Your task to perform on an android device: Open the stopwatch Image 0: 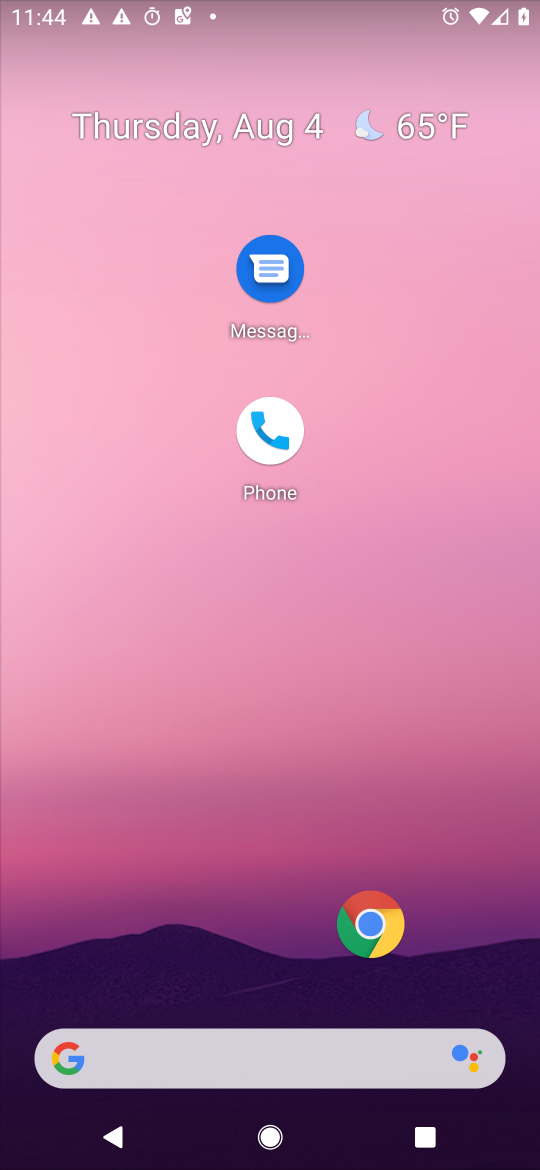
Step 0: drag from (252, 911) to (381, 268)
Your task to perform on an android device: Open the stopwatch Image 1: 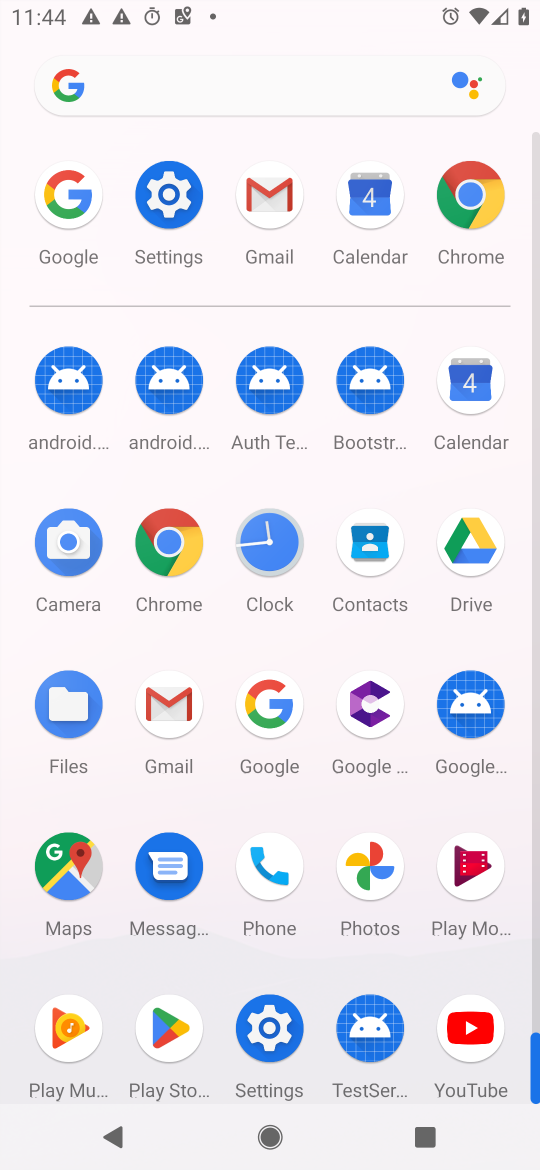
Step 1: click (252, 530)
Your task to perform on an android device: Open the stopwatch Image 2: 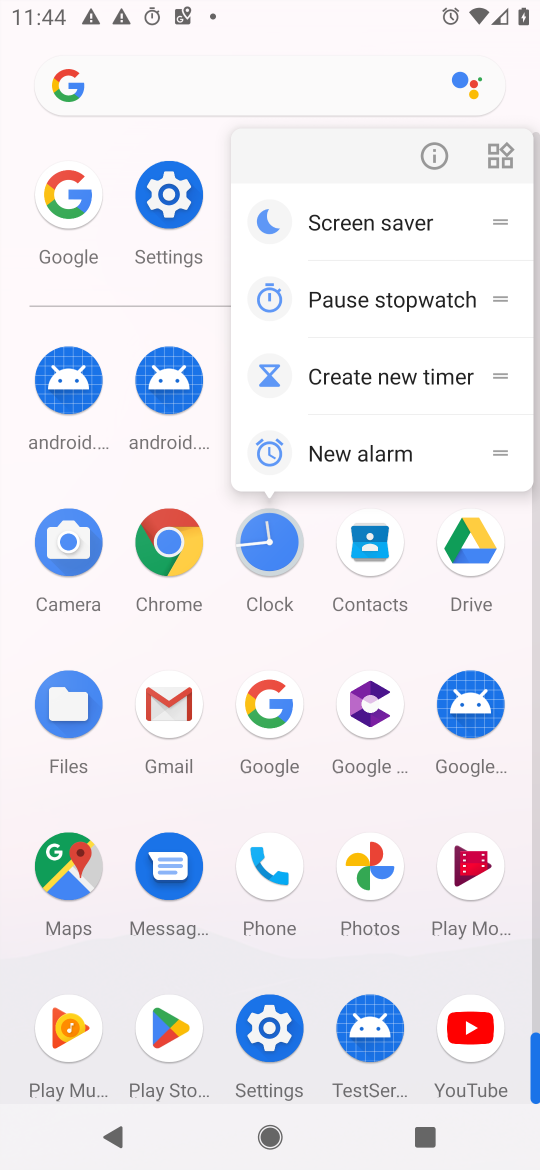
Step 2: click (424, 125)
Your task to perform on an android device: Open the stopwatch Image 3: 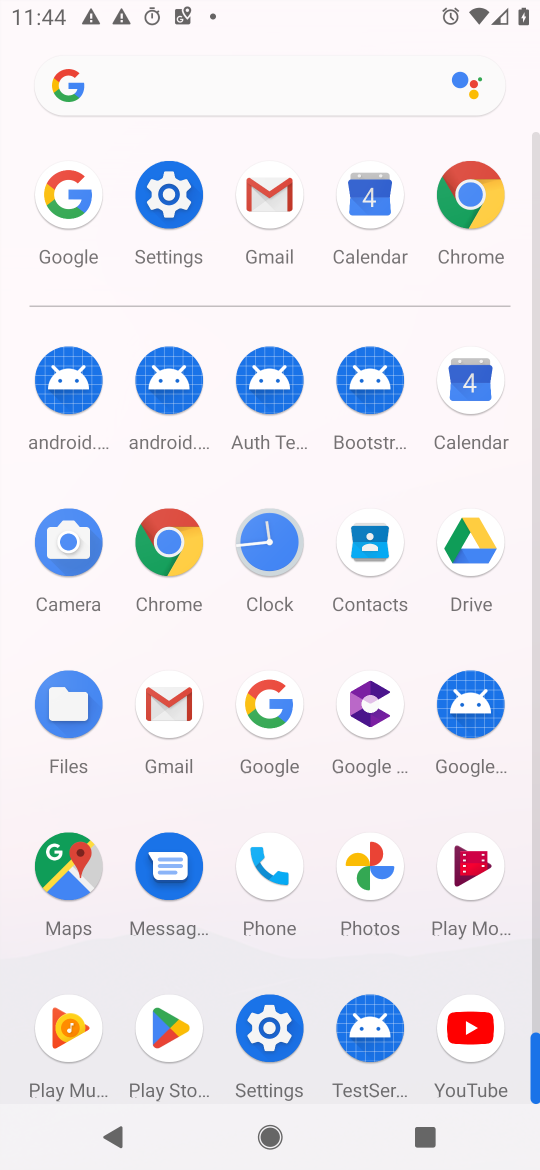
Step 3: click (268, 542)
Your task to perform on an android device: Open the stopwatch Image 4: 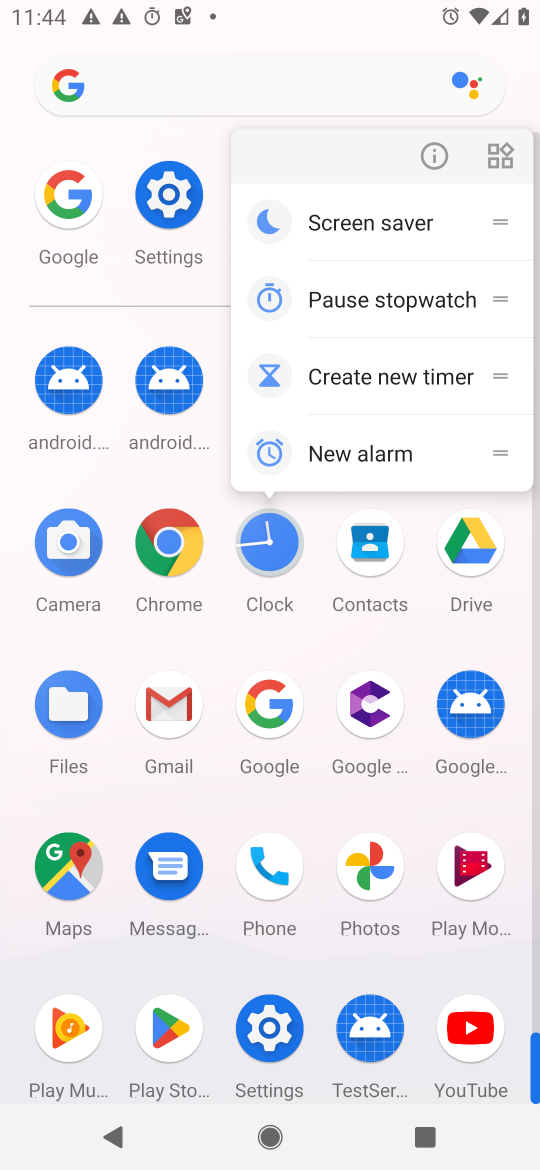
Step 4: click (434, 143)
Your task to perform on an android device: Open the stopwatch Image 5: 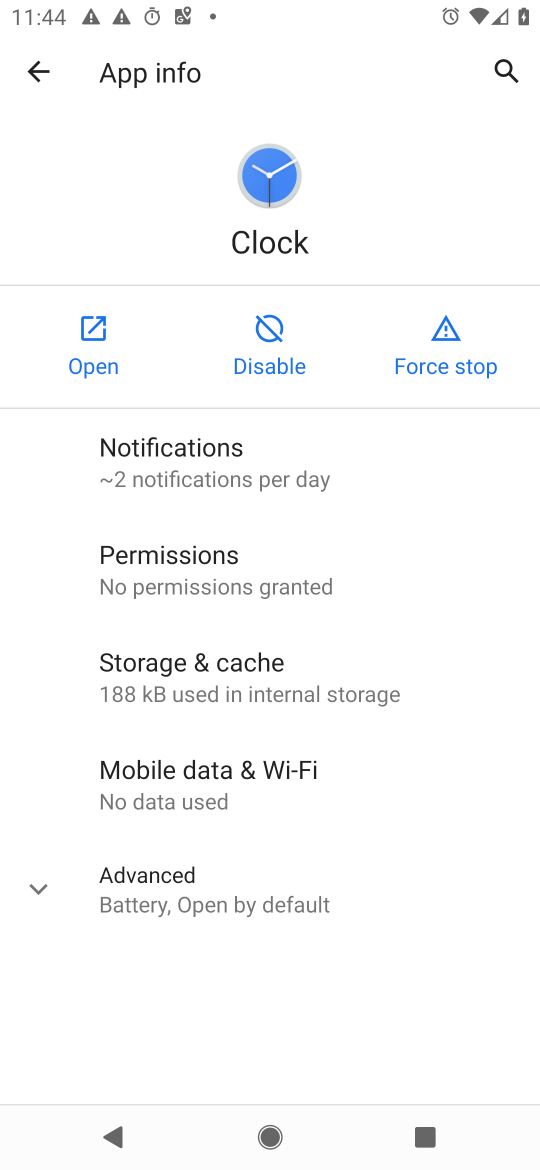
Step 5: click (57, 348)
Your task to perform on an android device: Open the stopwatch Image 6: 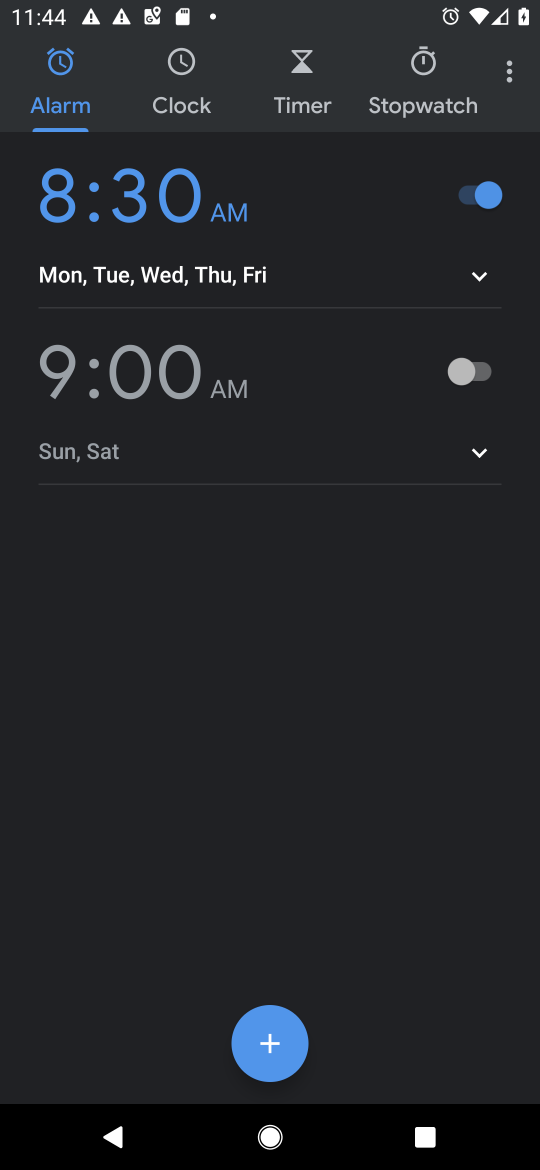
Step 6: click (412, 52)
Your task to perform on an android device: Open the stopwatch Image 7: 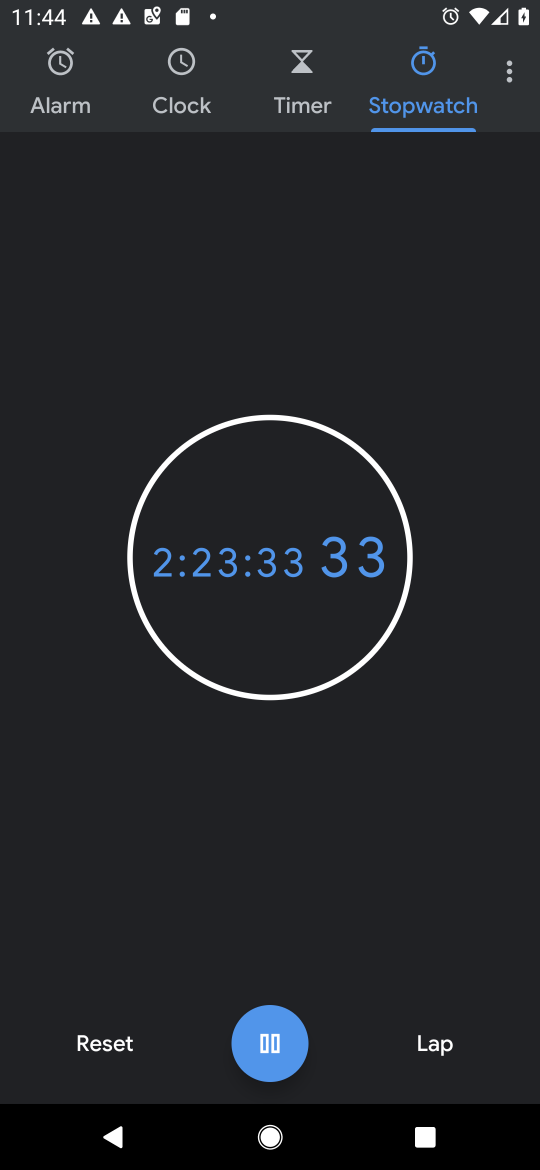
Step 7: click (96, 1040)
Your task to perform on an android device: Open the stopwatch Image 8: 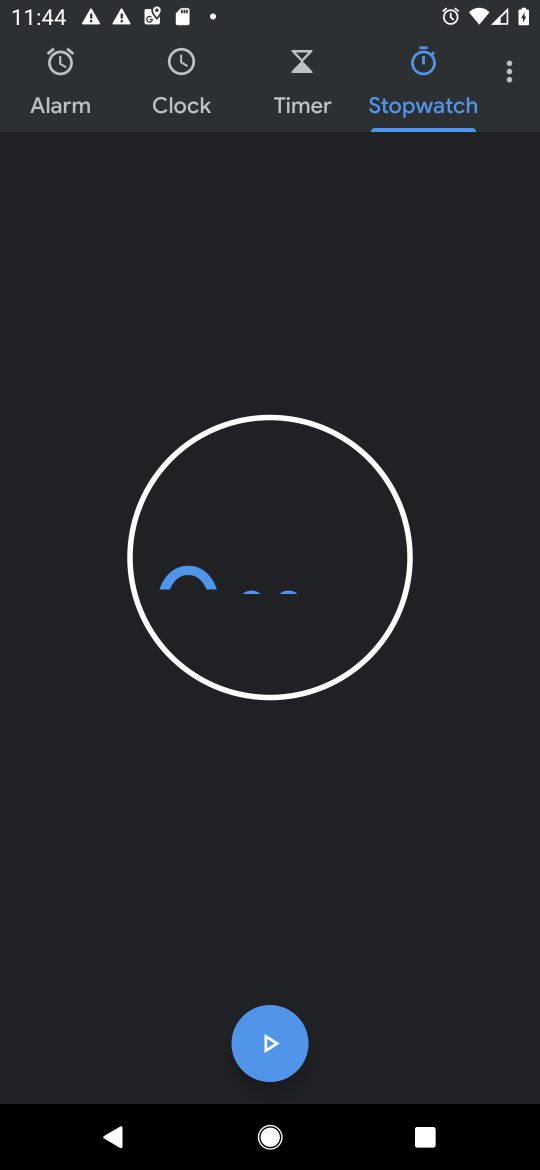
Step 8: click (258, 1037)
Your task to perform on an android device: Open the stopwatch Image 9: 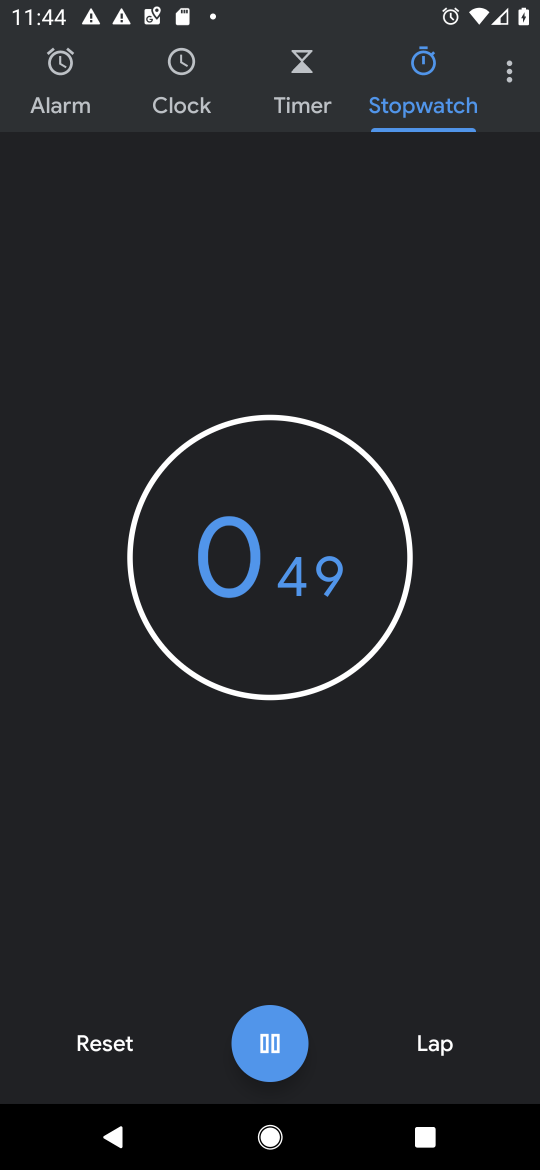
Step 9: task complete